Your task to perform on an android device: Go to Yahoo.com Image 0: 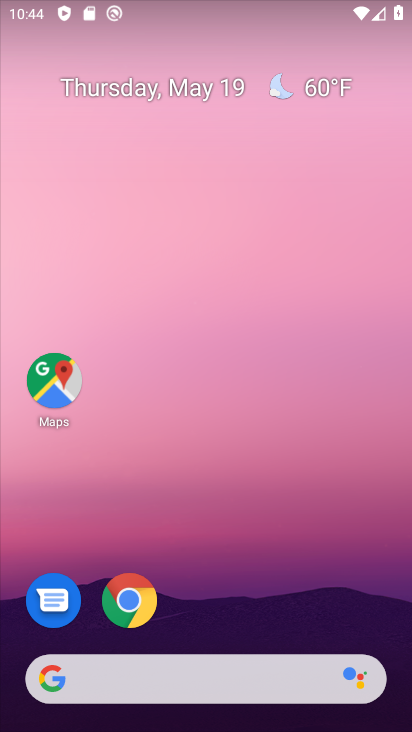
Step 0: drag from (359, 555) to (345, 281)
Your task to perform on an android device: Go to Yahoo.com Image 1: 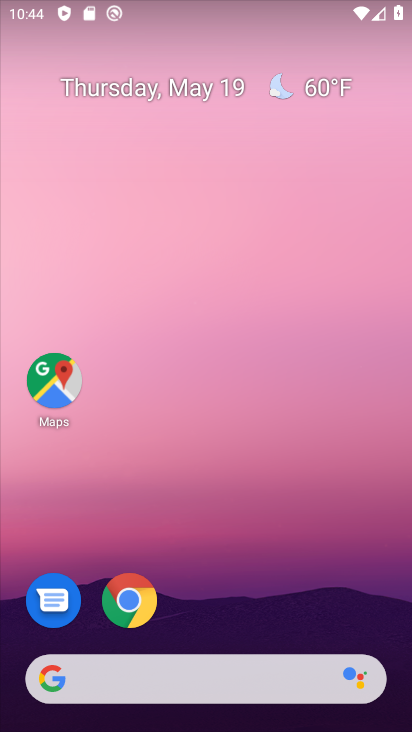
Step 1: drag from (339, 591) to (340, 270)
Your task to perform on an android device: Go to Yahoo.com Image 2: 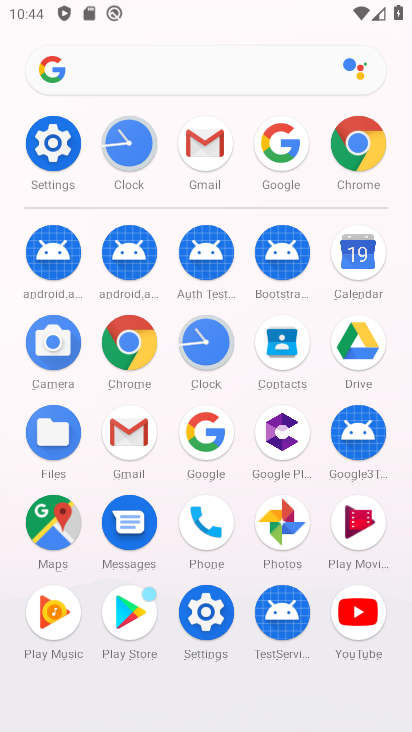
Step 2: click (147, 346)
Your task to perform on an android device: Go to Yahoo.com Image 3: 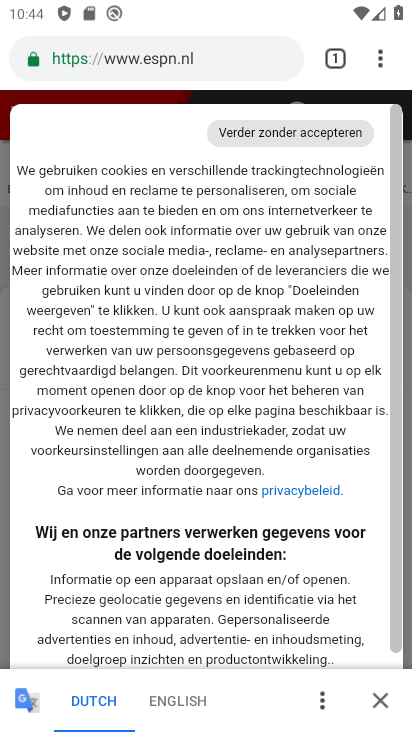
Step 3: press back button
Your task to perform on an android device: Go to Yahoo.com Image 4: 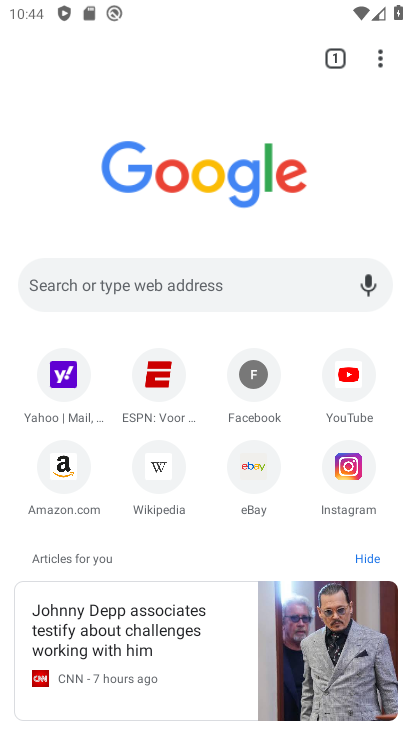
Step 4: click (67, 386)
Your task to perform on an android device: Go to Yahoo.com Image 5: 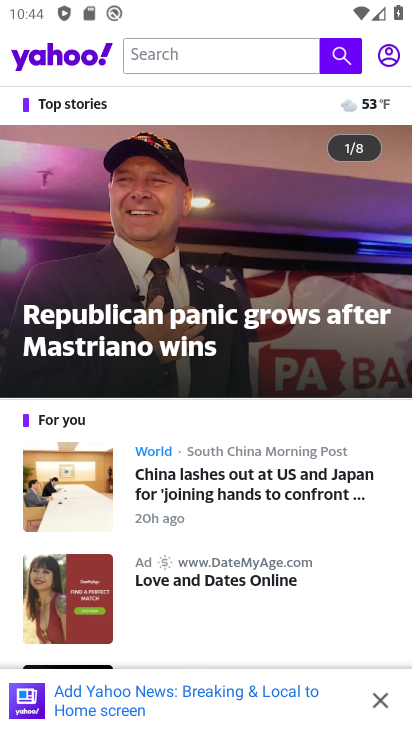
Step 5: task complete